Your task to perform on an android device: Search for logitech g903 on amazon, select the first entry, add it to the cart, then select checkout. Image 0: 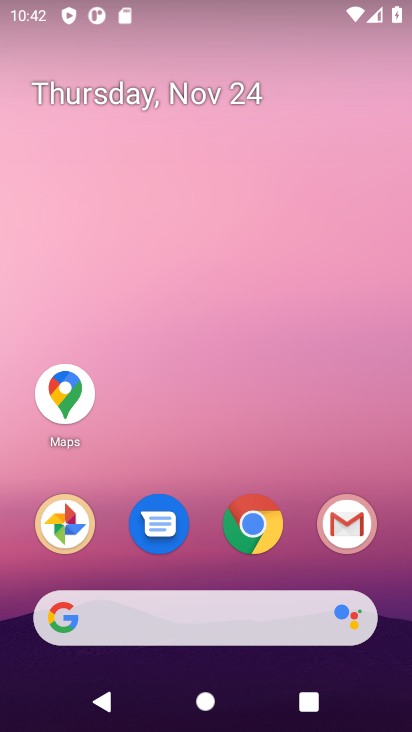
Step 0: click (246, 526)
Your task to perform on an android device: Search for logitech g903 on amazon, select the first entry, add it to the cart, then select checkout. Image 1: 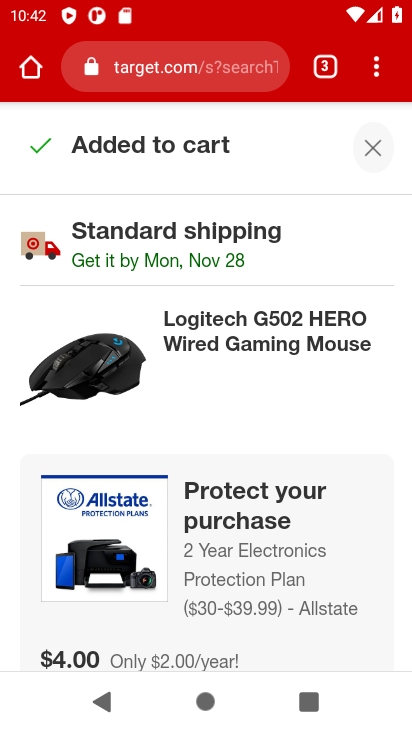
Step 1: click (142, 71)
Your task to perform on an android device: Search for logitech g903 on amazon, select the first entry, add it to the cart, then select checkout. Image 2: 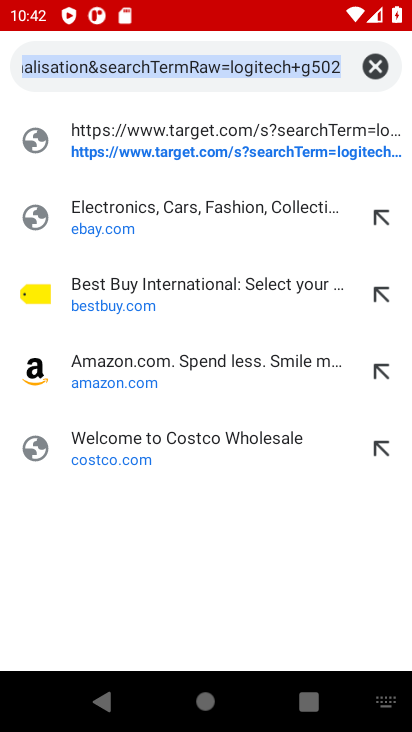
Step 2: click (85, 370)
Your task to perform on an android device: Search for logitech g903 on amazon, select the first entry, add it to the cart, then select checkout. Image 3: 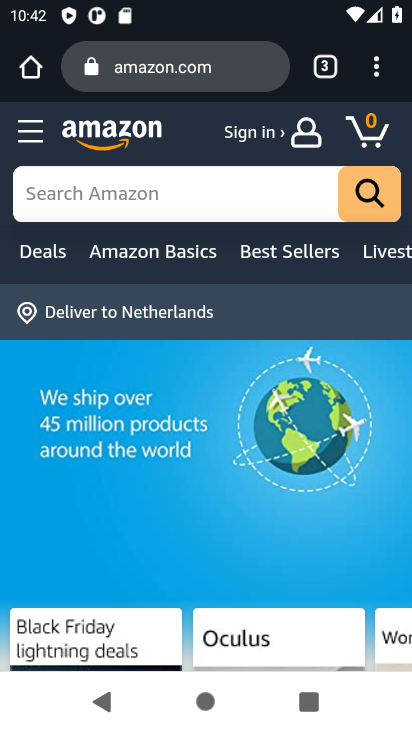
Step 3: click (90, 194)
Your task to perform on an android device: Search for logitech g903 on amazon, select the first entry, add it to the cart, then select checkout. Image 4: 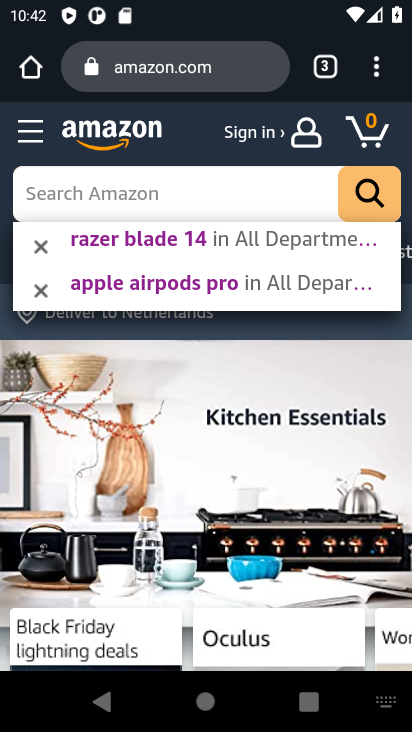
Step 4: type " logitech g903"
Your task to perform on an android device: Search for logitech g903 on amazon, select the first entry, add it to the cart, then select checkout. Image 5: 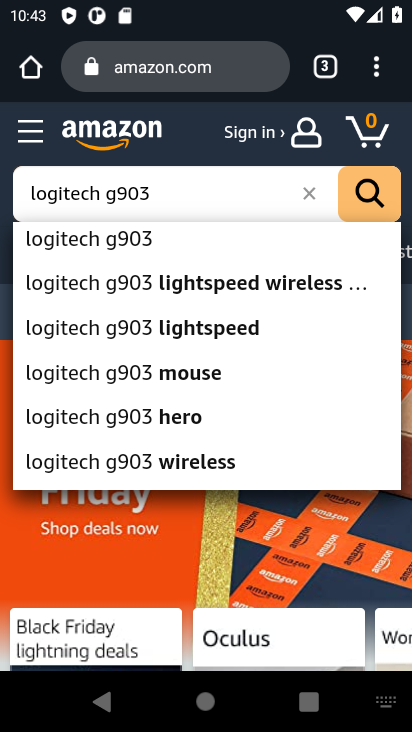
Step 5: click (78, 239)
Your task to perform on an android device: Search for logitech g903 on amazon, select the first entry, add it to the cart, then select checkout. Image 6: 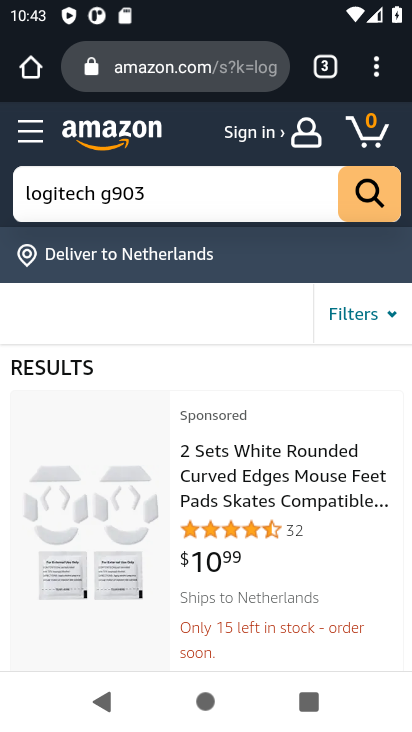
Step 6: click (373, 191)
Your task to perform on an android device: Search for logitech g903 on amazon, select the first entry, add it to the cart, then select checkout. Image 7: 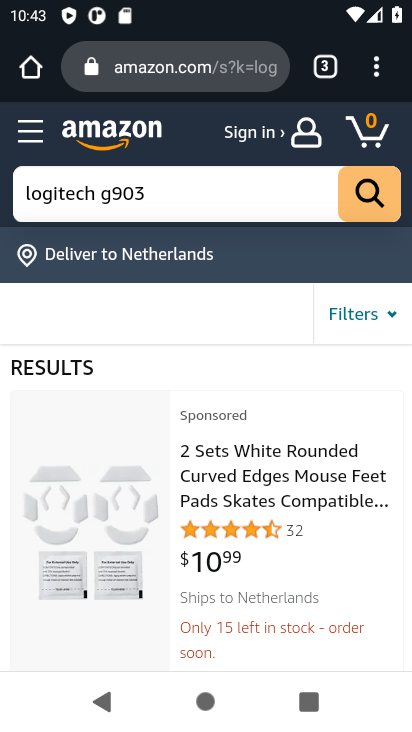
Step 7: drag from (155, 519) to (155, 381)
Your task to perform on an android device: Search for logitech g903 on amazon, select the first entry, add it to the cart, then select checkout. Image 8: 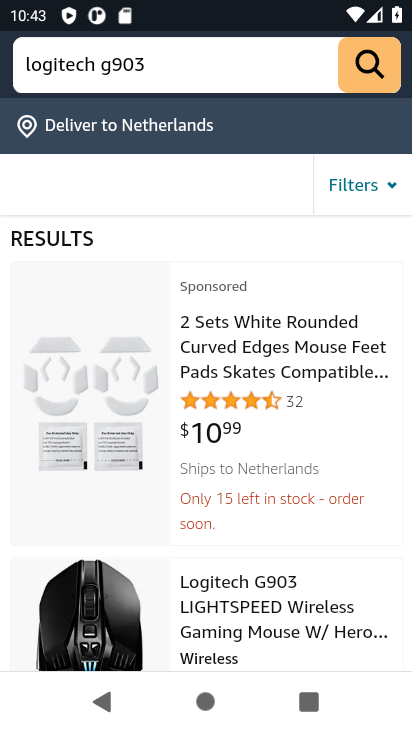
Step 8: drag from (129, 487) to (135, 415)
Your task to perform on an android device: Search for logitech g903 on amazon, select the first entry, add it to the cart, then select checkout. Image 9: 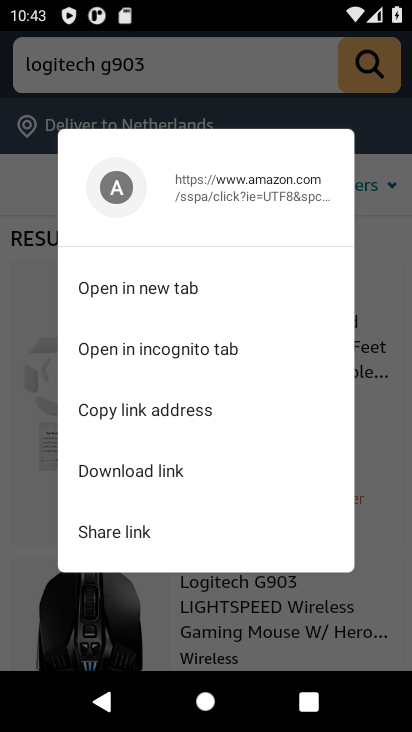
Step 9: click (397, 430)
Your task to perform on an android device: Search for logitech g903 on amazon, select the first entry, add it to the cart, then select checkout. Image 10: 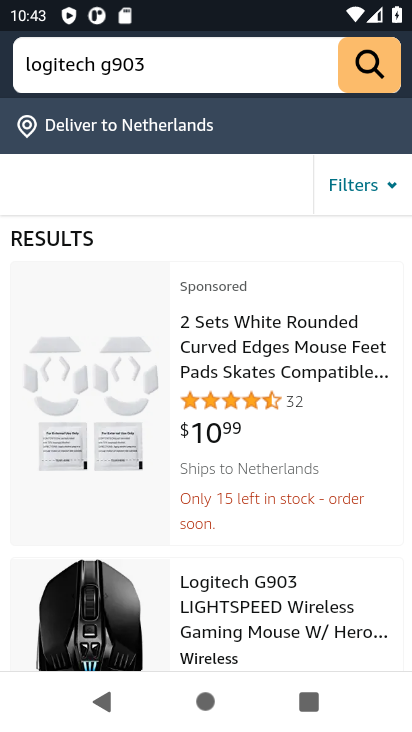
Step 10: task complete